Your task to perform on an android device: Open my contact list Image 0: 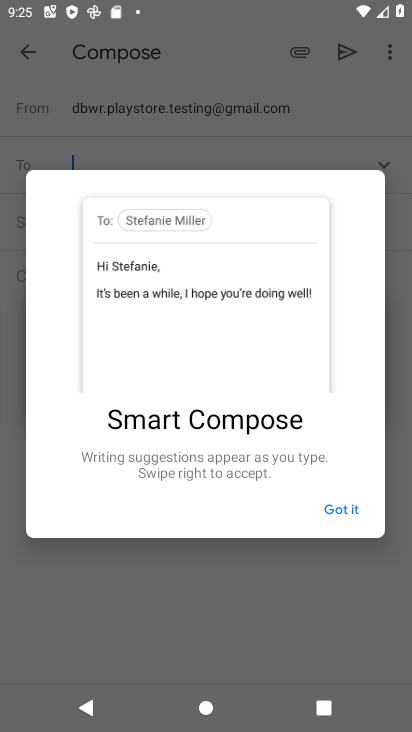
Step 0: press home button
Your task to perform on an android device: Open my contact list Image 1: 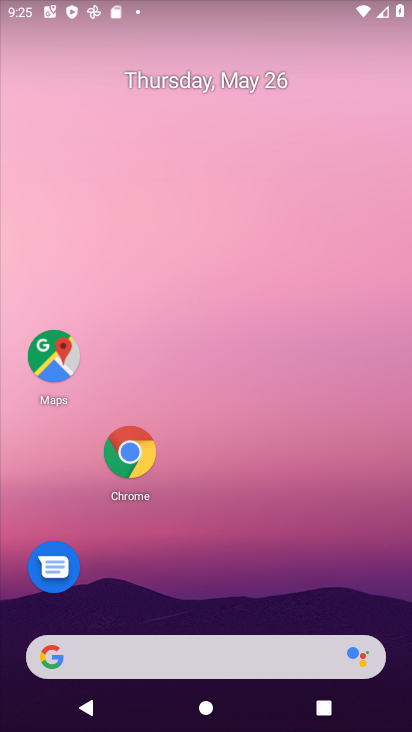
Step 1: drag from (167, 651) to (339, 16)
Your task to perform on an android device: Open my contact list Image 2: 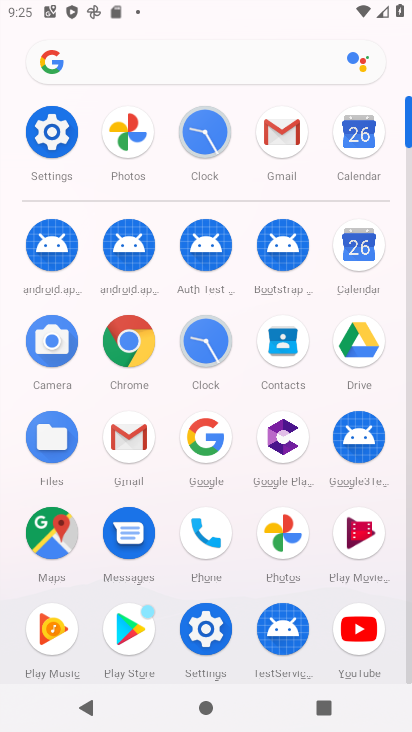
Step 2: click (275, 346)
Your task to perform on an android device: Open my contact list Image 3: 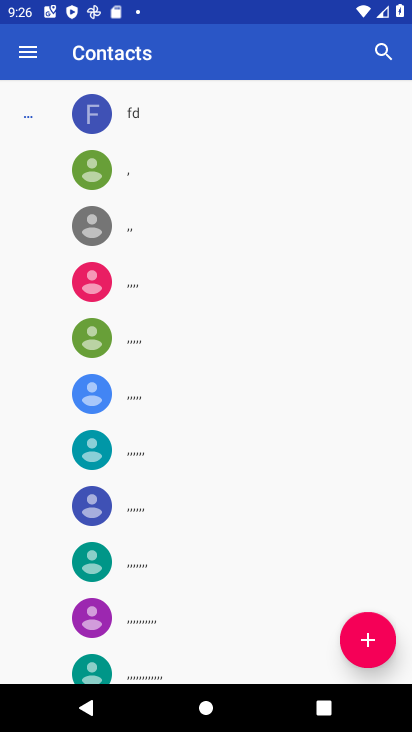
Step 3: task complete